Your task to perform on an android device: install app "Google News" Image 0: 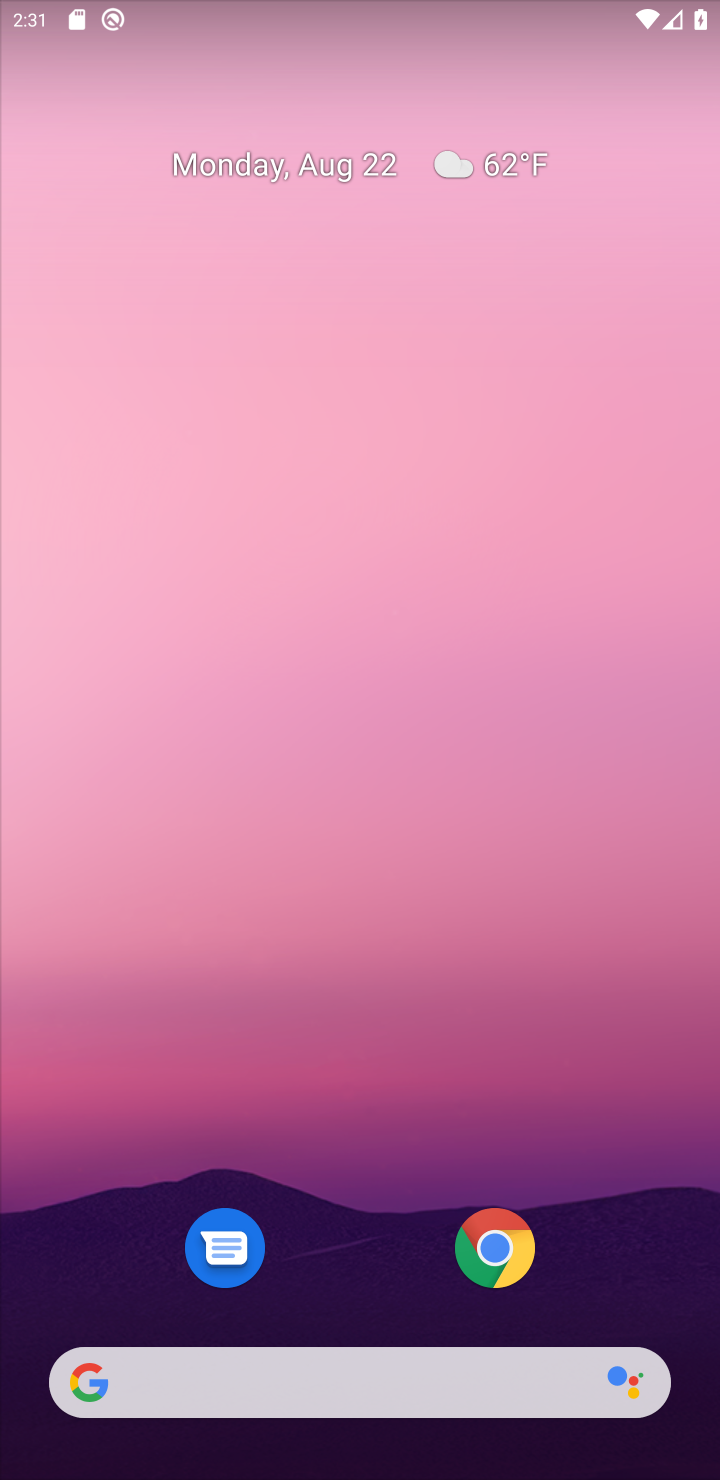
Step 0: drag from (337, 1158) to (441, 0)
Your task to perform on an android device: install app "Google News" Image 1: 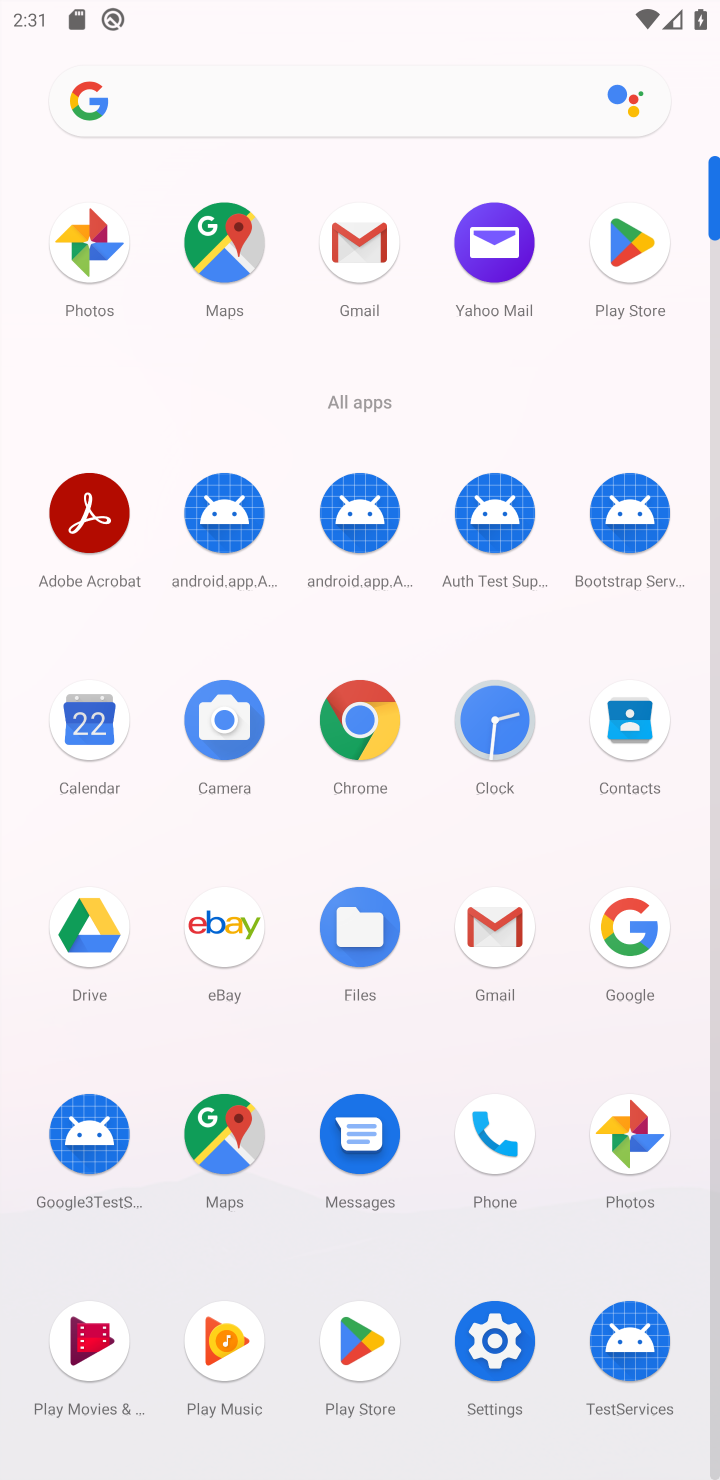
Step 1: click (623, 259)
Your task to perform on an android device: install app "Google News" Image 2: 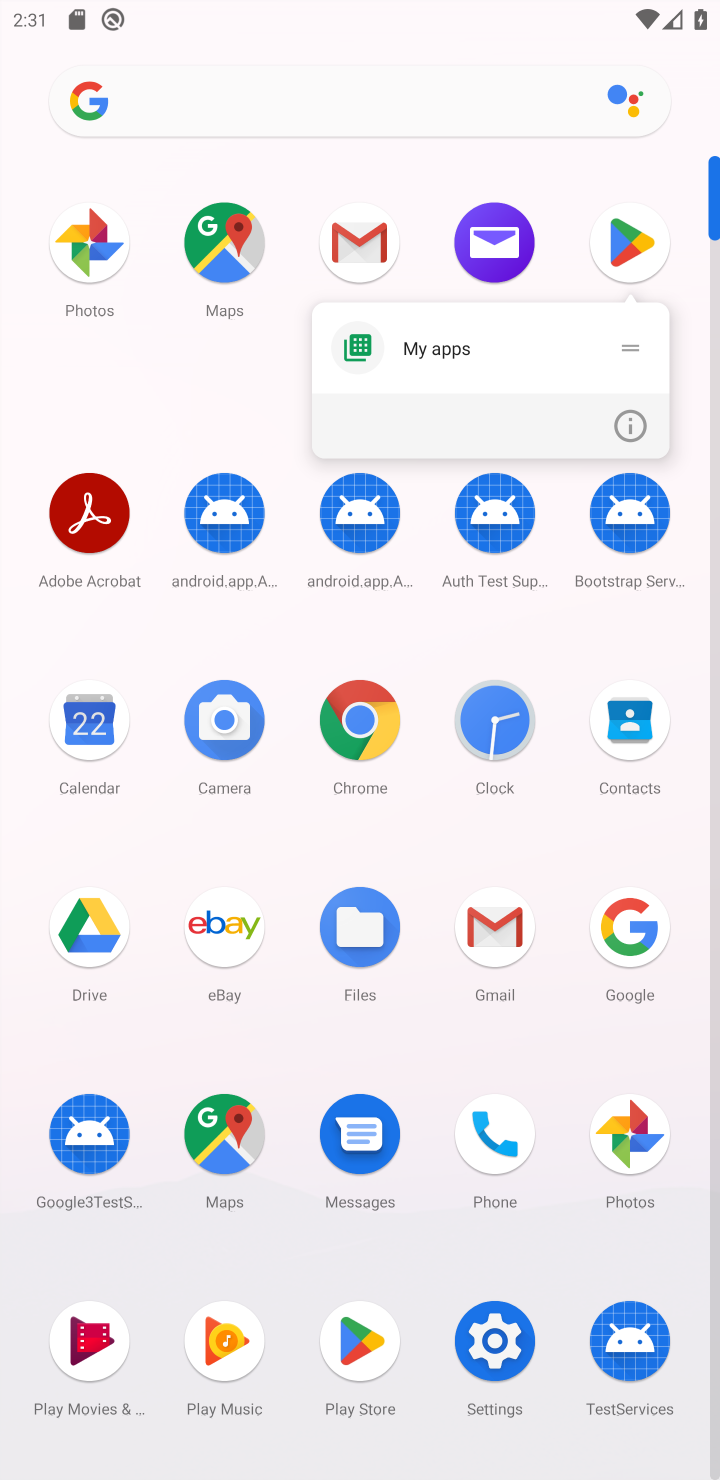
Step 2: click (621, 235)
Your task to perform on an android device: install app "Google News" Image 3: 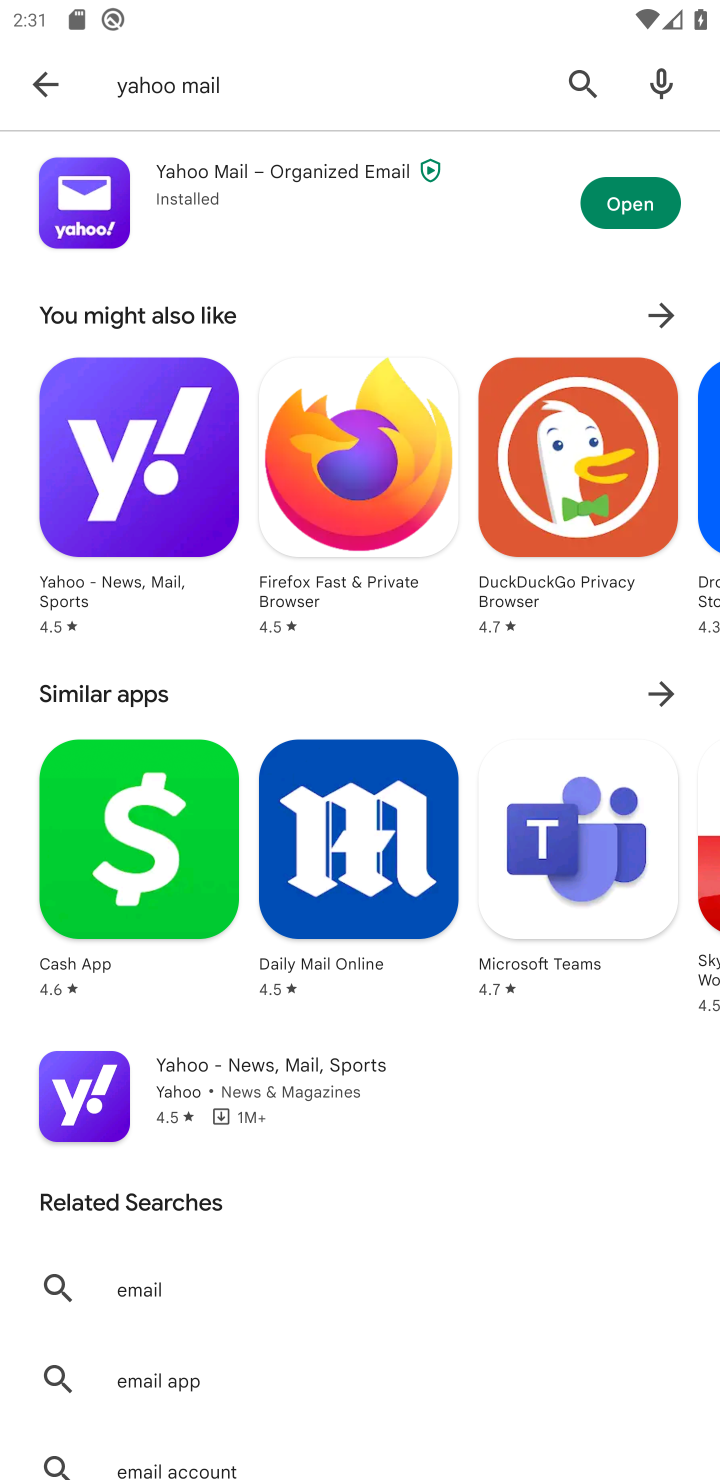
Step 3: click (216, 86)
Your task to perform on an android device: install app "Google News" Image 4: 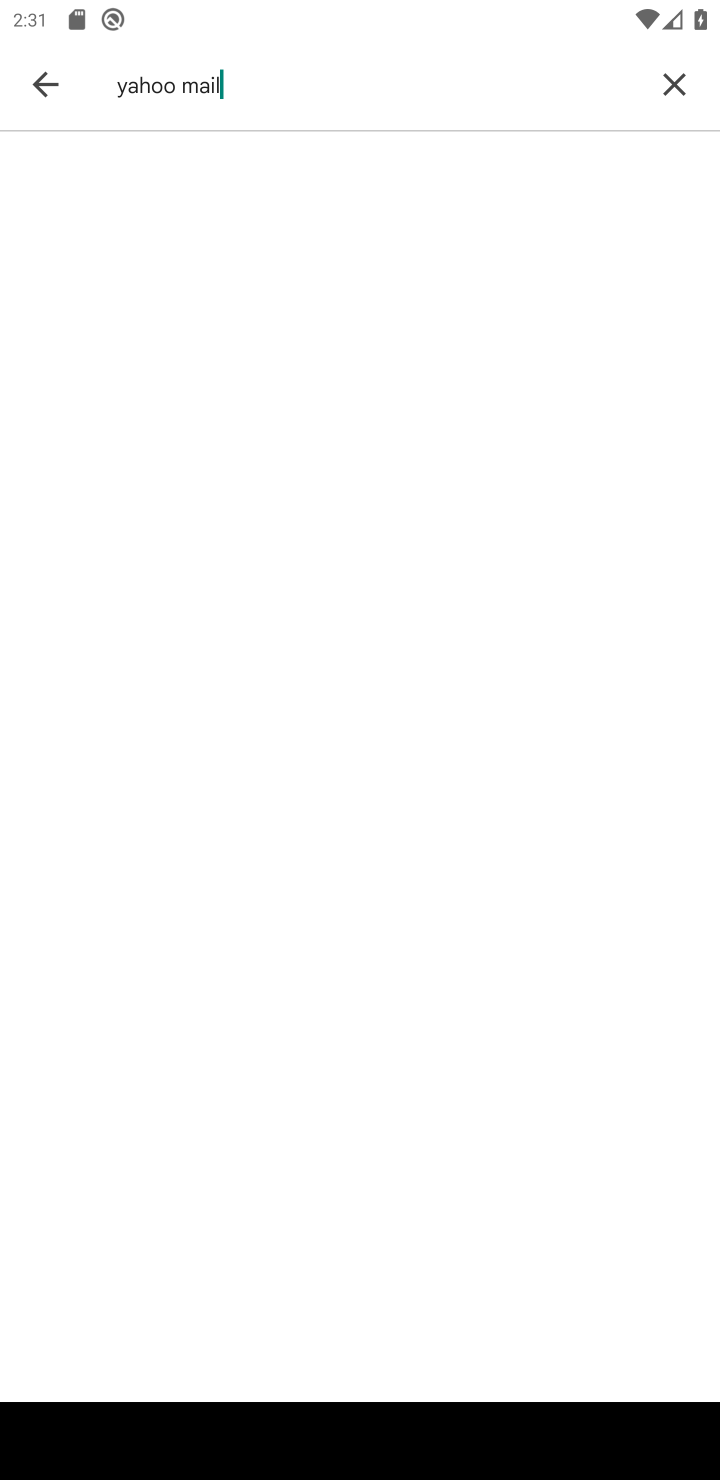
Step 4: click (669, 83)
Your task to perform on an android device: install app "Google News" Image 5: 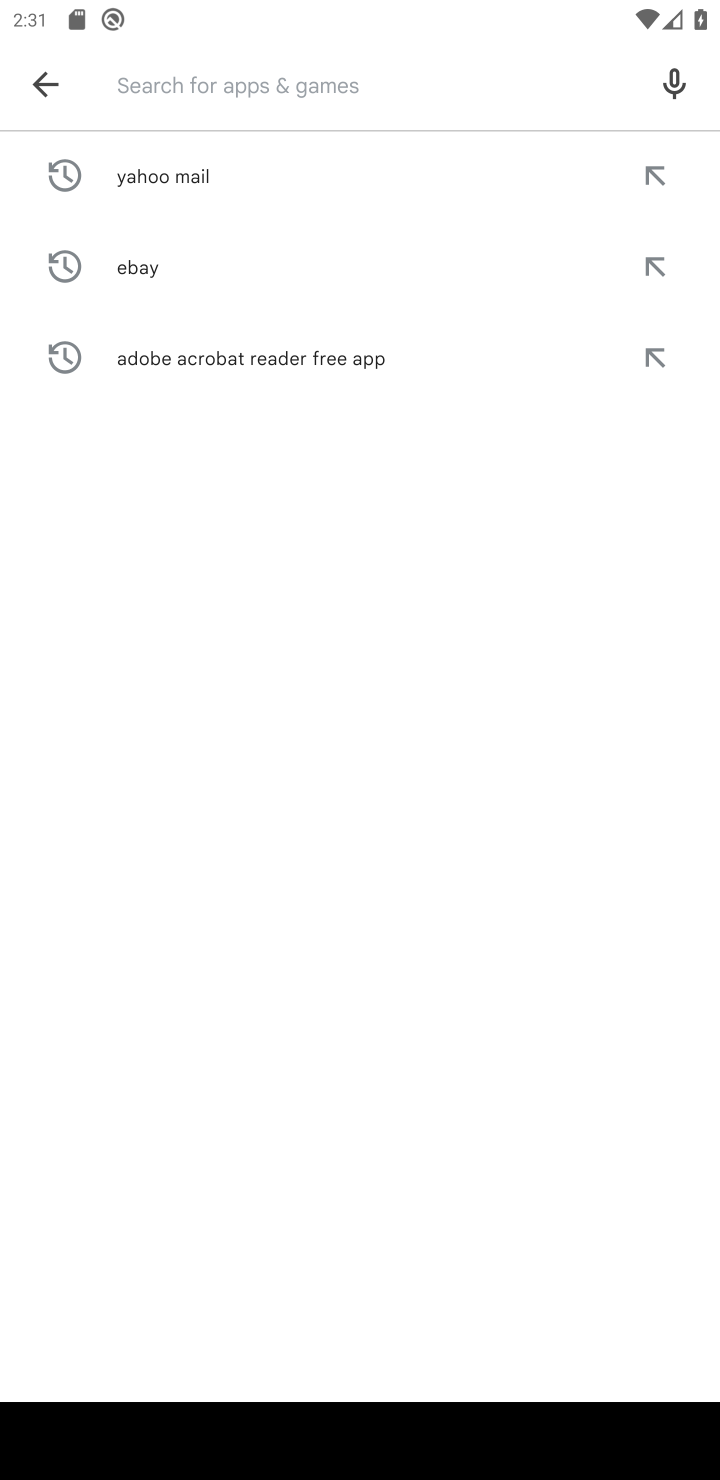
Step 5: type "google news"
Your task to perform on an android device: install app "Google News" Image 6: 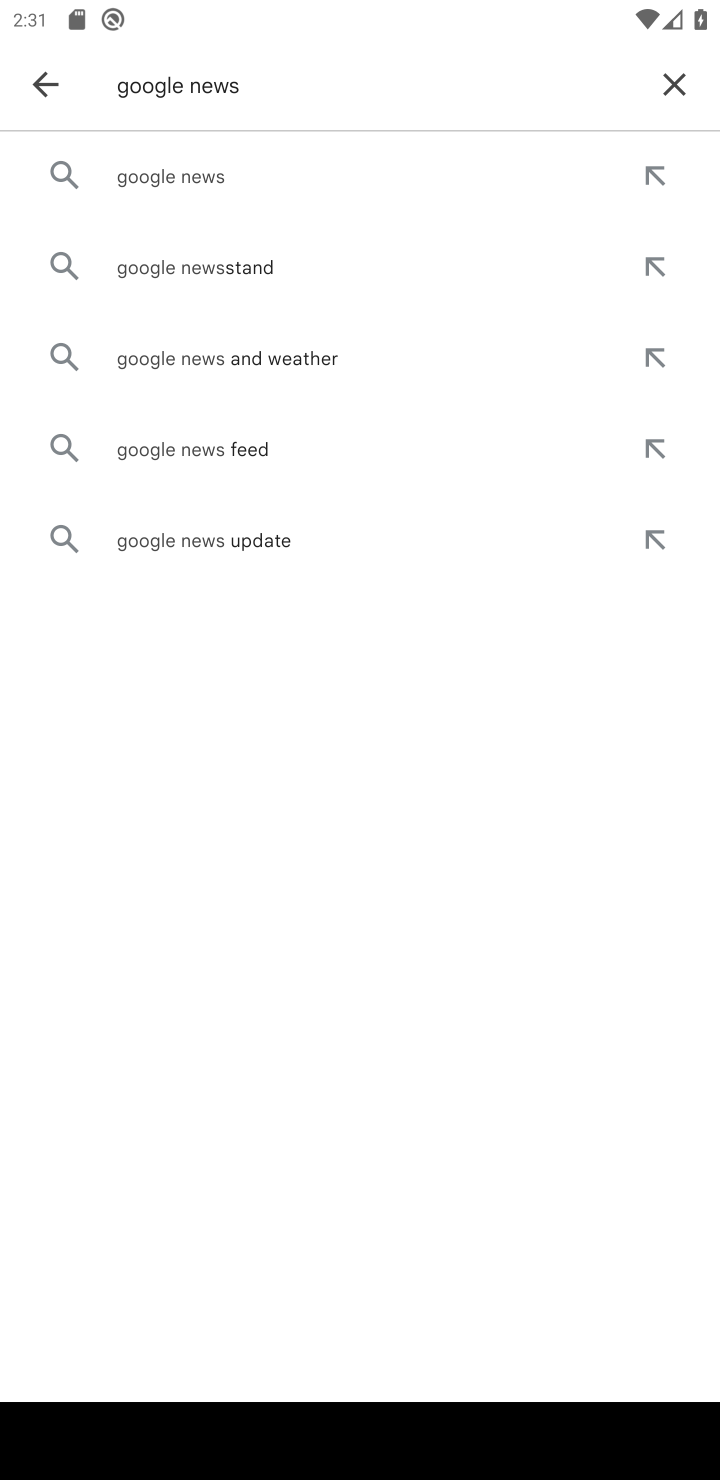
Step 6: click (214, 160)
Your task to perform on an android device: install app "Google News" Image 7: 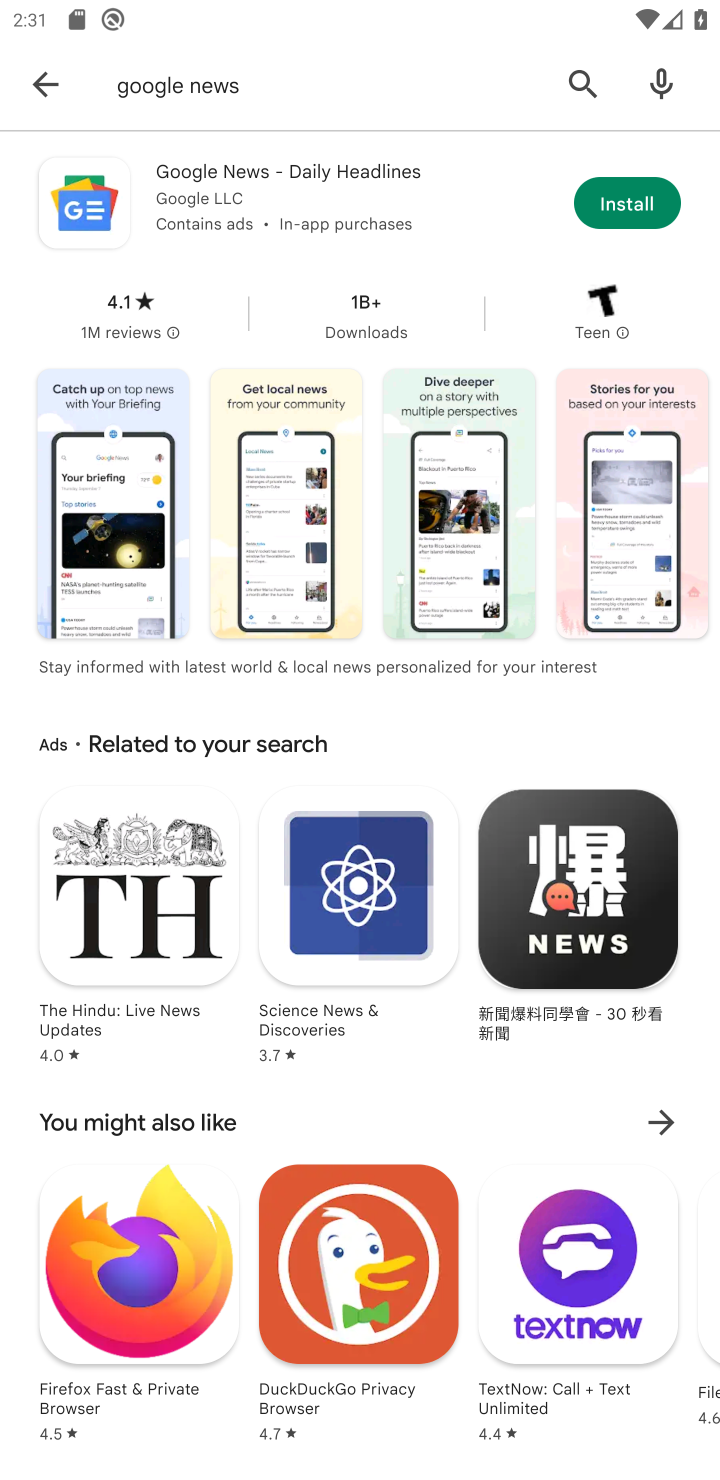
Step 7: click (617, 200)
Your task to perform on an android device: install app "Google News" Image 8: 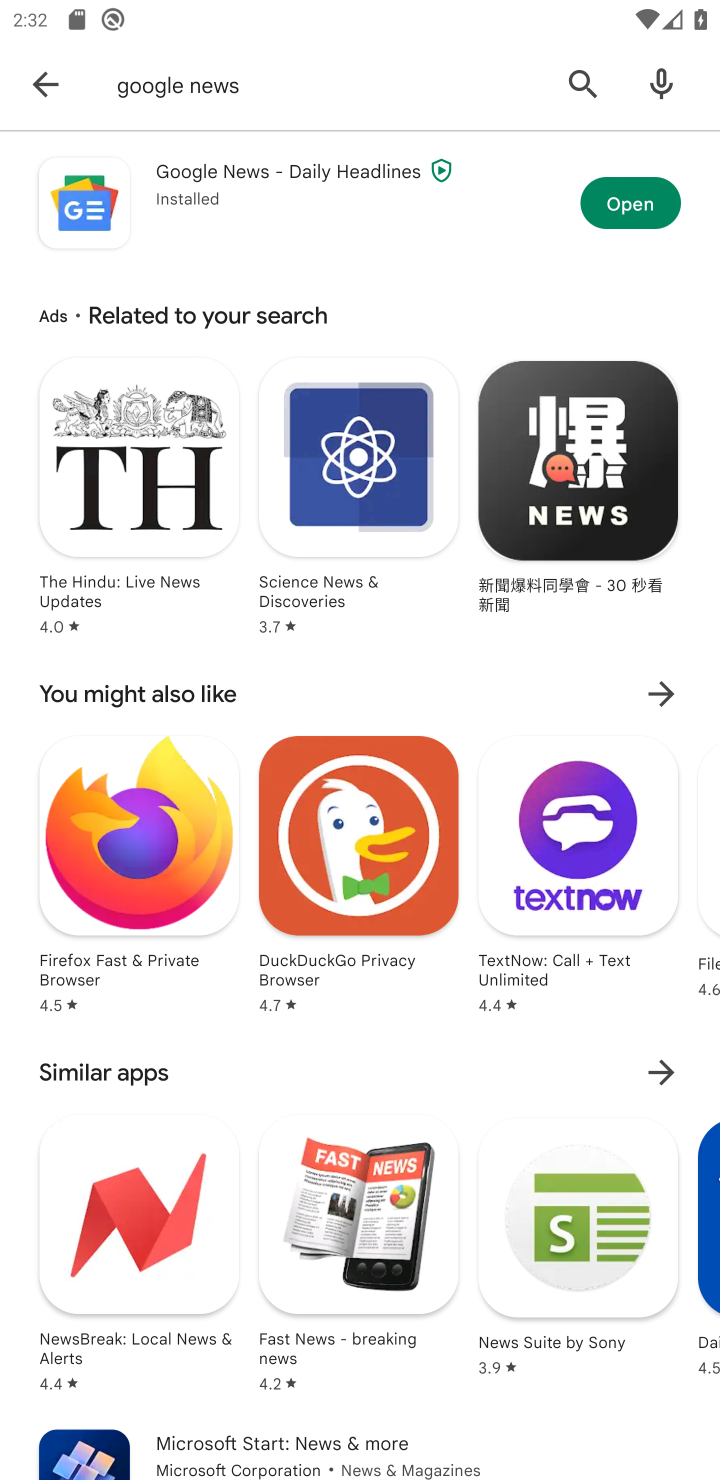
Step 8: task complete